Your task to perform on an android device: Open settings on Google Maps Image 0: 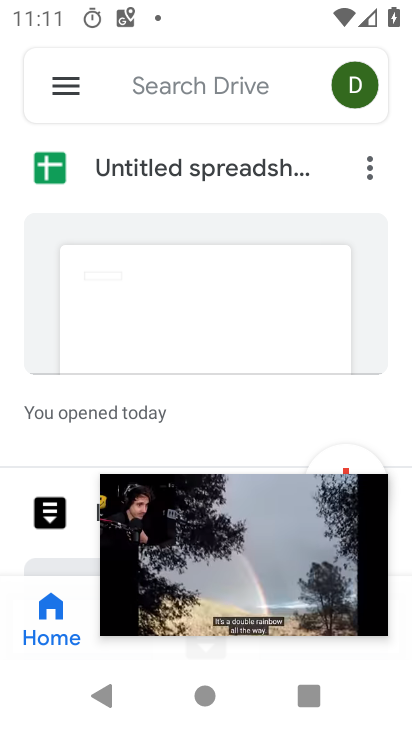
Step 0: press home button
Your task to perform on an android device: Open settings on Google Maps Image 1: 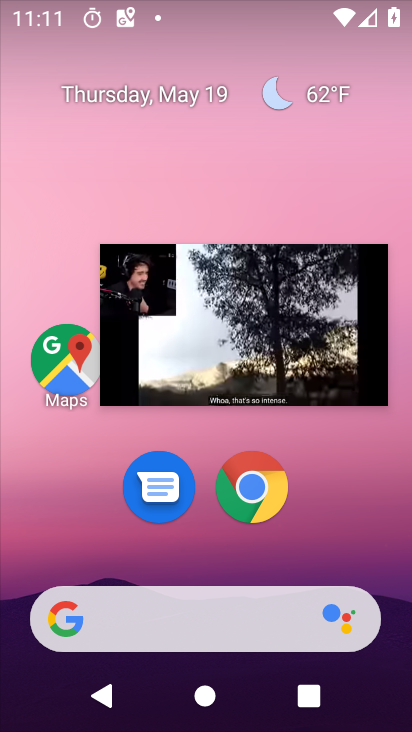
Step 1: click (364, 261)
Your task to perform on an android device: Open settings on Google Maps Image 2: 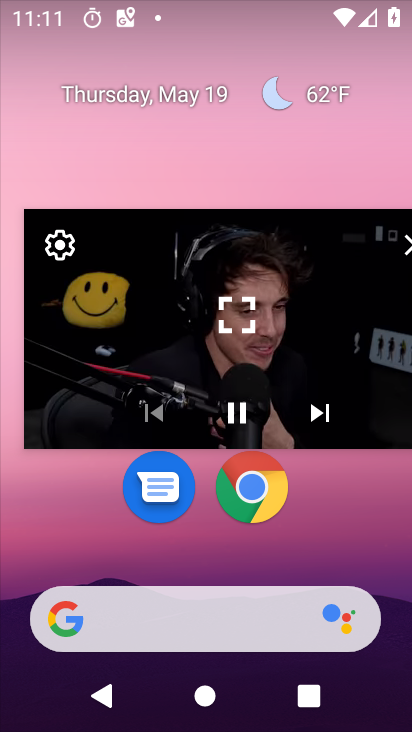
Step 2: click (364, 261)
Your task to perform on an android device: Open settings on Google Maps Image 3: 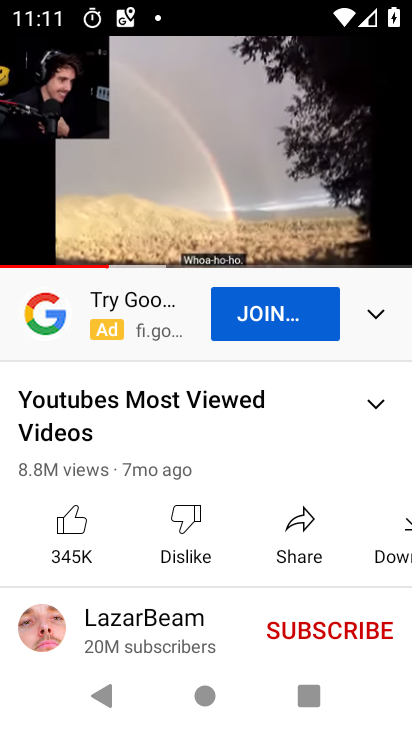
Step 3: click (309, 156)
Your task to perform on an android device: Open settings on Google Maps Image 4: 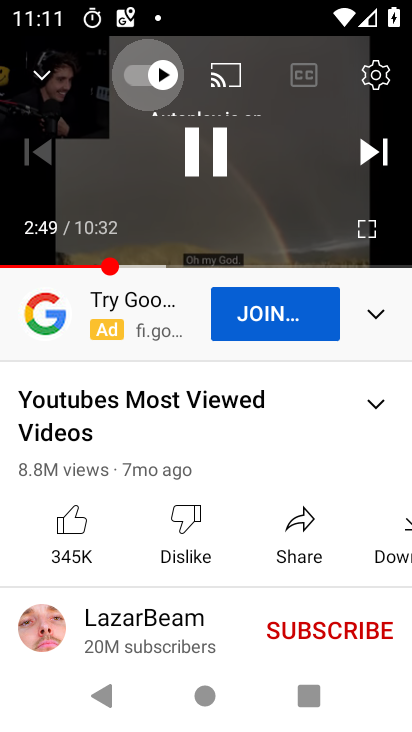
Step 4: click (198, 145)
Your task to perform on an android device: Open settings on Google Maps Image 5: 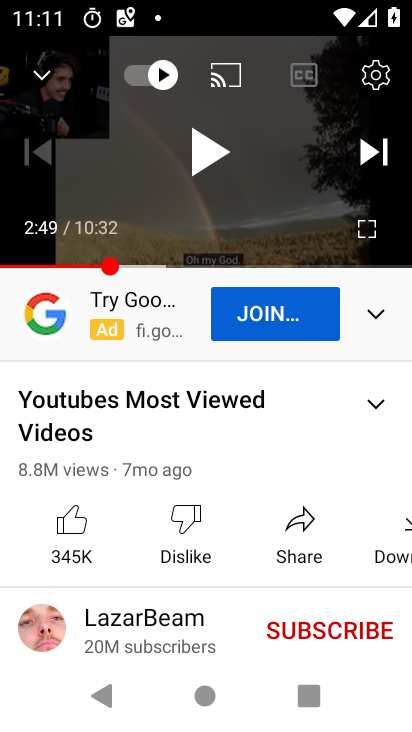
Step 5: press back button
Your task to perform on an android device: Open settings on Google Maps Image 6: 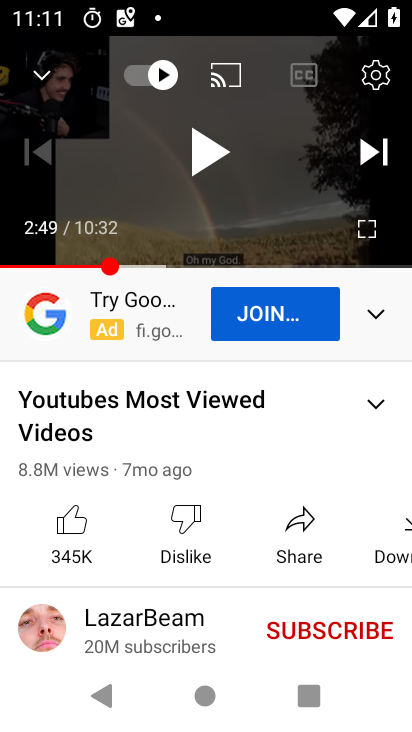
Step 6: press back button
Your task to perform on an android device: Open settings on Google Maps Image 7: 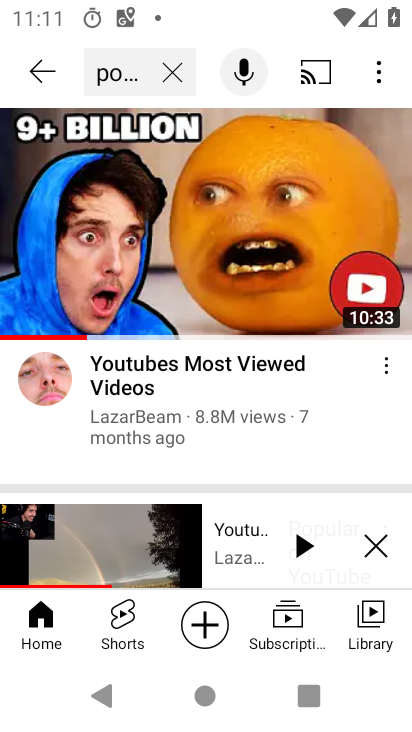
Step 7: press back button
Your task to perform on an android device: Open settings on Google Maps Image 8: 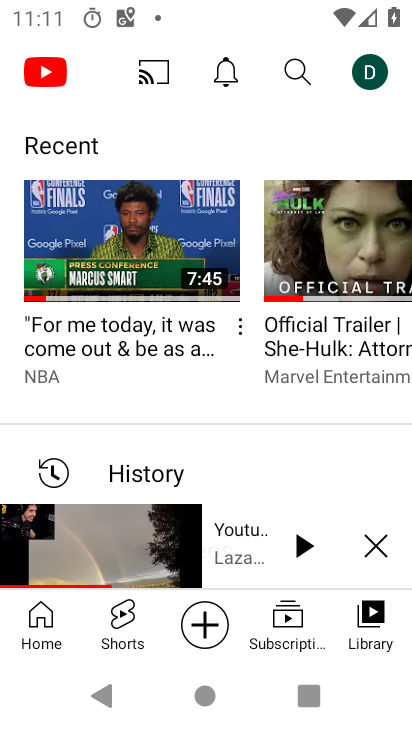
Step 8: press back button
Your task to perform on an android device: Open settings on Google Maps Image 9: 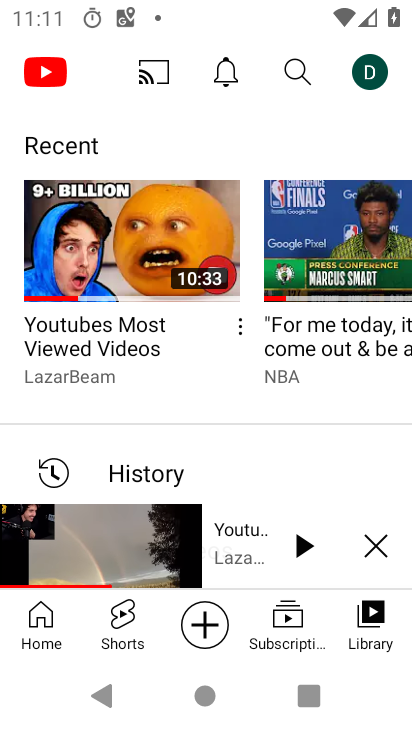
Step 9: press back button
Your task to perform on an android device: Open settings on Google Maps Image 10: 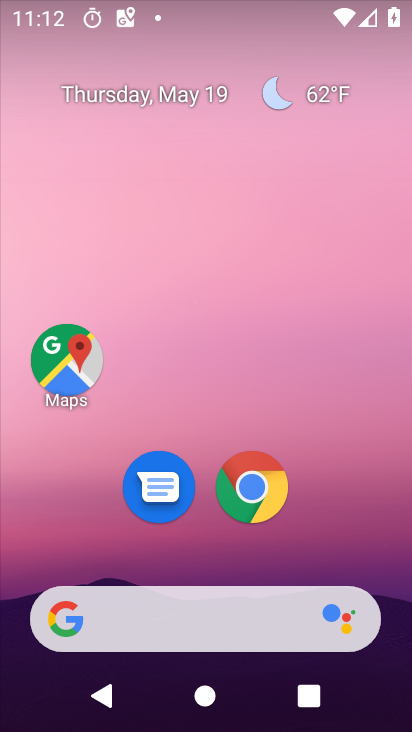
Step 10: click (82, 372)
Your task to perform on an android device: Open settings on Google Maps Image 11: 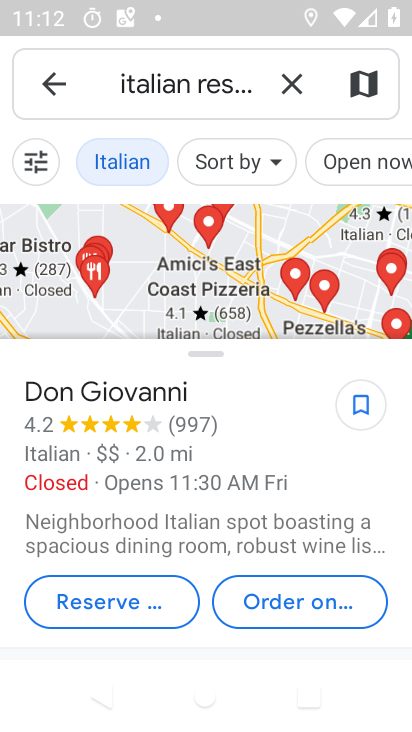
Step 11: click (67, 78)
Your task to perform on an android device: Open settings on Google Maps Image 12: 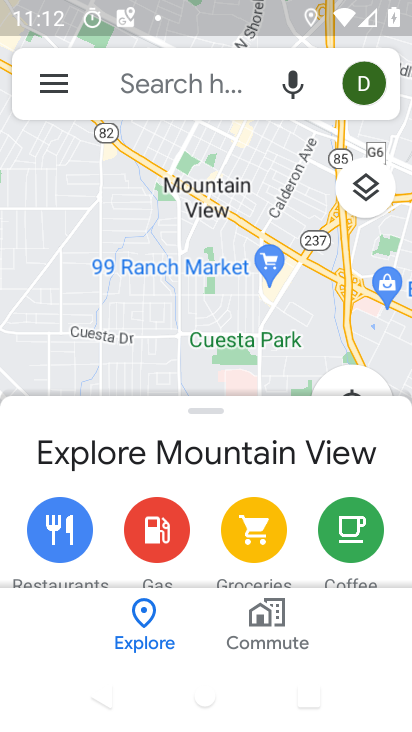
Step 12: click (50, 81)
Your task to perform on an android device: Open settings on Google Maps Image 13: 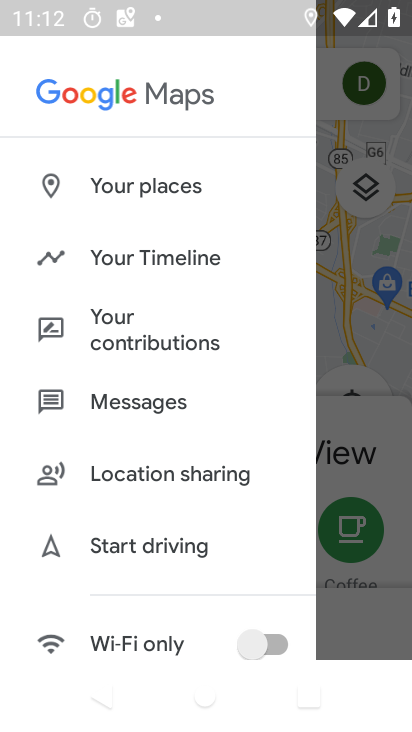
Step 13: task complete